Your task to perform on an android device: Show me the alarms in the clock app Image 0: 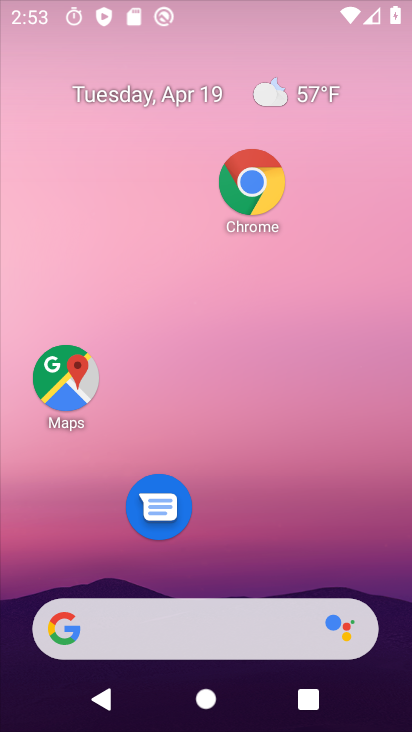
Step 0: drag from (259, 452) to (275, 239)
Your task to perform on an android device: Show me the alarms in the clock app Image 1: 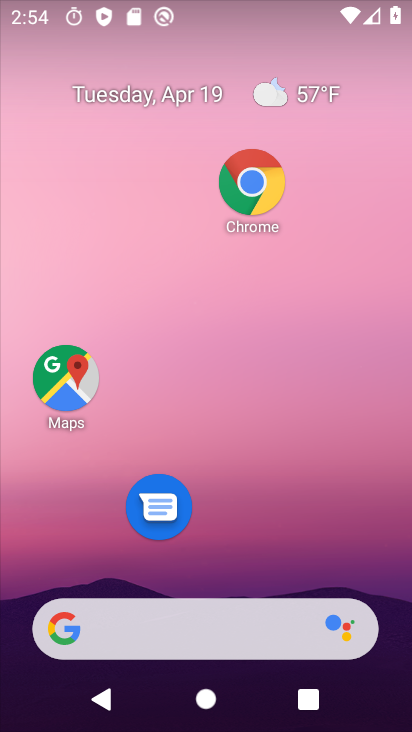
Step 1: drag from (317, 478) to (407, 45)
Your task to perform on an android device: Show me the alarms in the clock app Image 2: 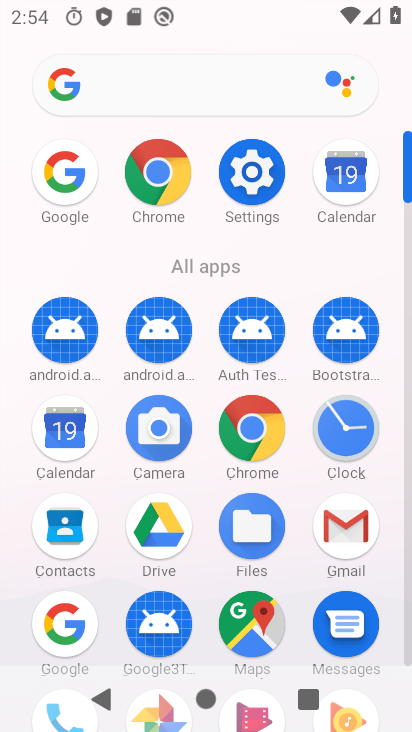
Step 2: click (347, 434)
Your task to perform on an android device: Show me the alarms in the clock app Image 3: 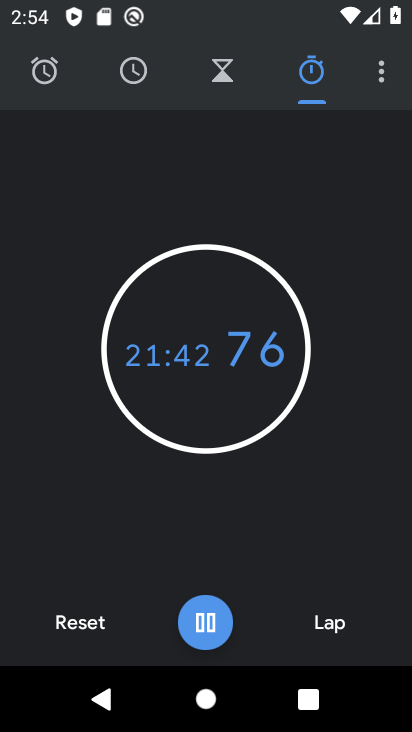
Step 3: click (53, 80)
Your task to perform on an android device: Show me the alarms in the clock app Image 4: 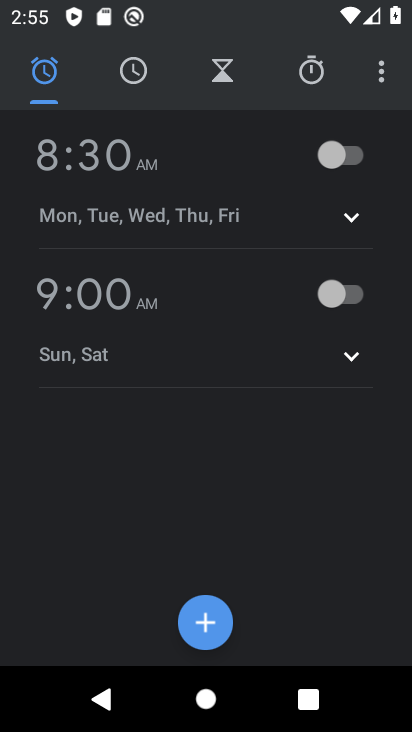
Step 4: task complete